Your task to perform on an android device: Open Amazon Image 0: 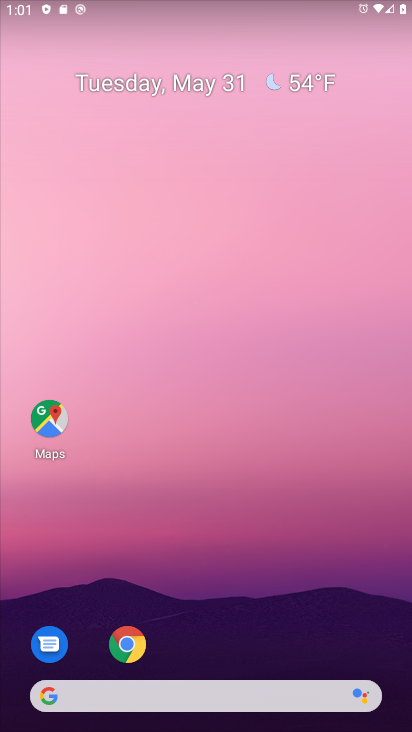
Step 0: press home button
Your task to perform on an android device: Open Amazon Image 1: 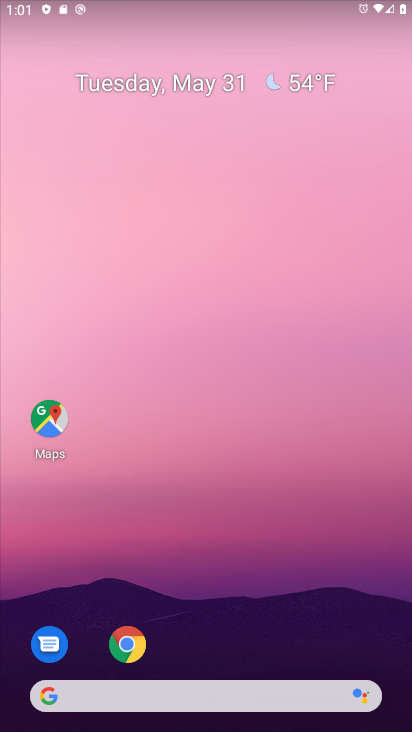
Step 1: click (49, 694)
Your task to perform on an android device: Open Amazon Image 2: 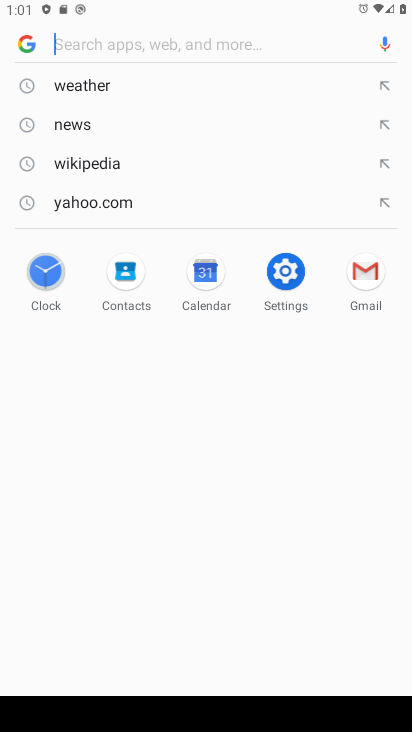
Step 2: type "Amazon"
Your task to perform on an android device: Open Amazon Image 3: 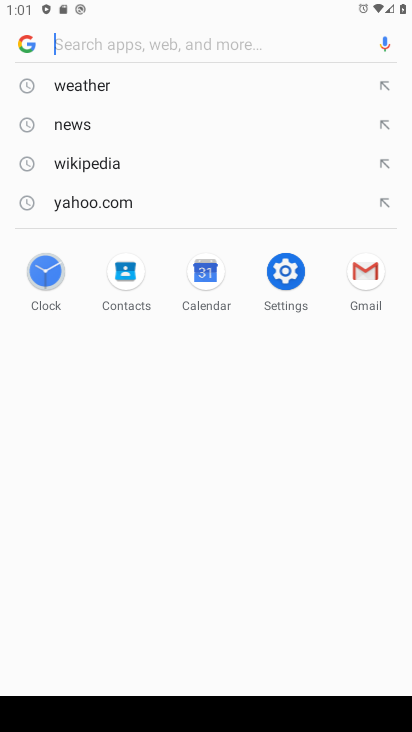
Step 3: click (180, 46)
Your task to perform on an android device: Open Amazon Image 4: 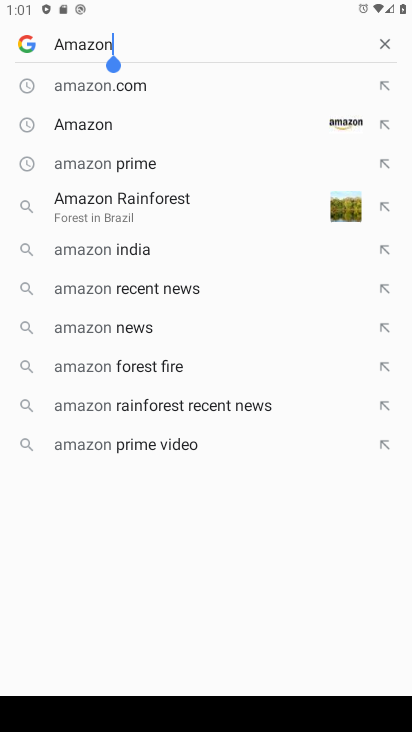
Step 4: click (86, 122)
Your task to perform on an android device: Open Amazon Image 5: 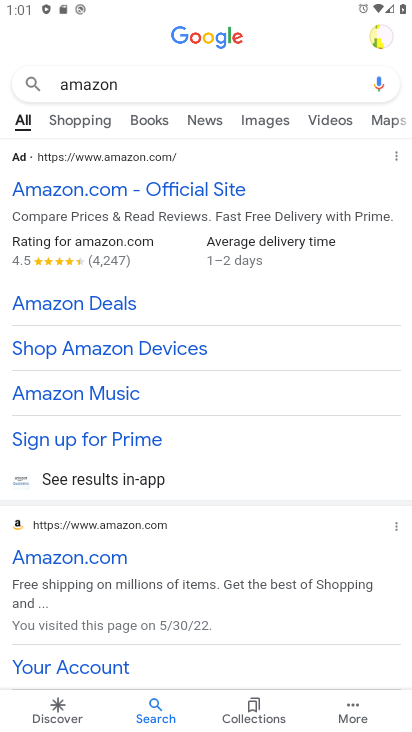
Step 5: click (107, 197)
Your task to perform on an android device: Open Amazon Image 6: 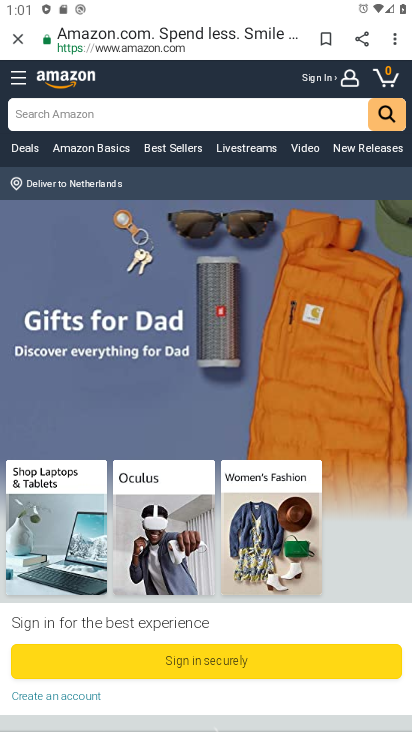
Step 6: task complete